Your task to perform on an android device: Open the calendar and show me this week's events Image 0: 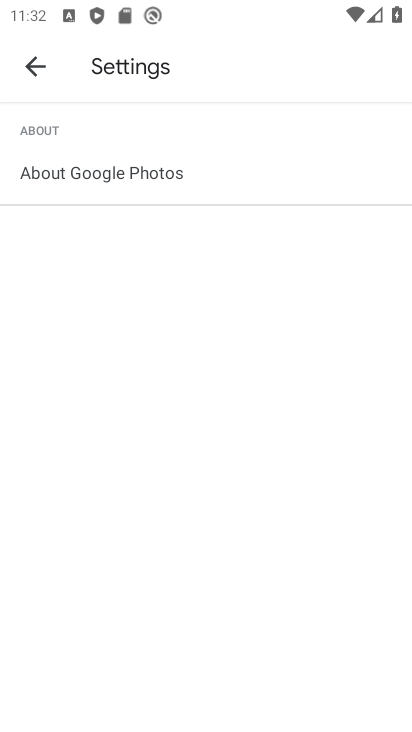
Step 0: press home button
Your task to perform on an android device: Open the calendar and show me this week's events Image 1: 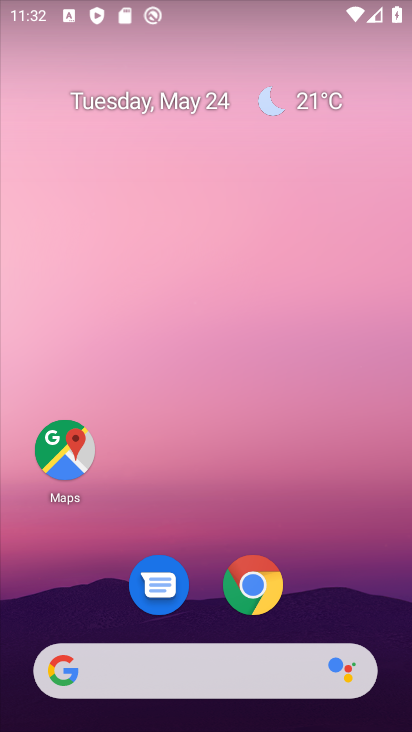
Step 1: drag from (226, 470) to (220, 0)
Your task to perform on an android device: Open the calendar and show me this week's events Image 2: 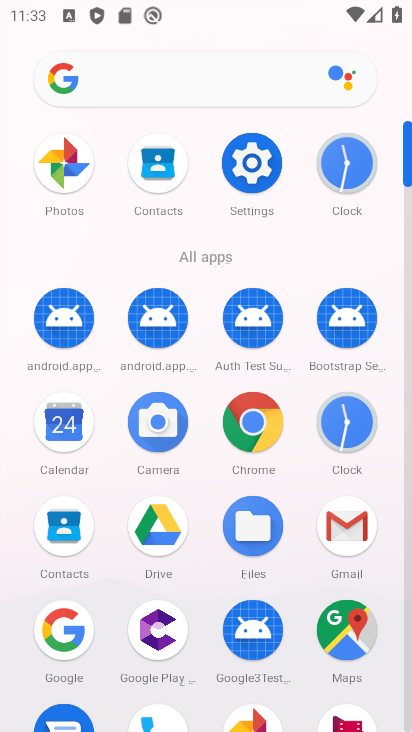
Step 2: click (60, 413)
Your task to perform on an android device: Open the calendar and show me this week's events Image 3: 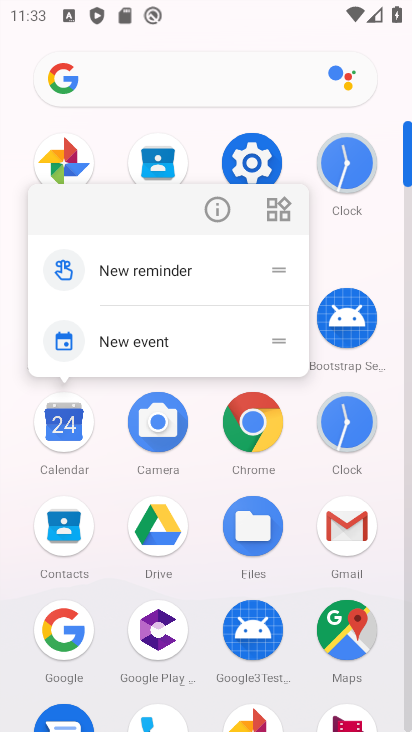
Step 3: click (60, 412)
Your task to perform on an android device: Open the calendar and show me this week's events Image 4: 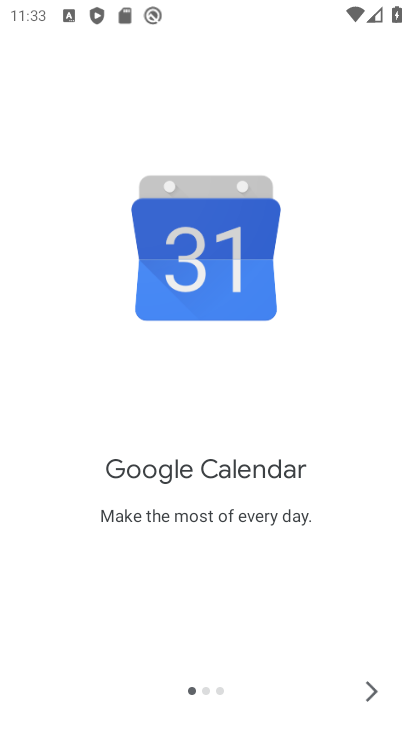
Step 4: click (368, 688)
Your task to perform on an android device: Open the calendar and show me this week's events Image 5: 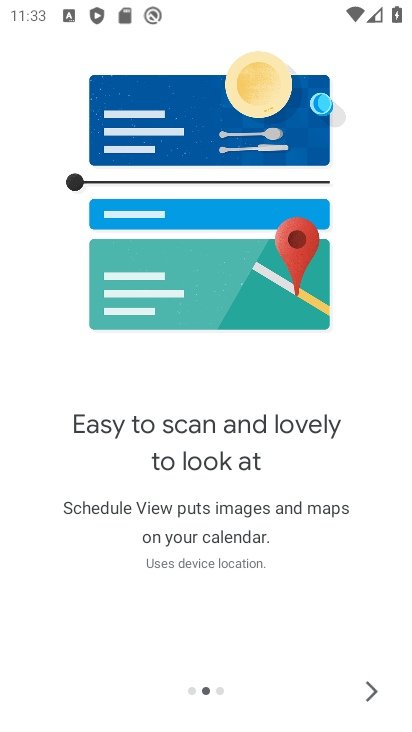
Step 5: click (368, 688)
Your task to perform on an android device: Open the calendar and show me this week's events Image 6: 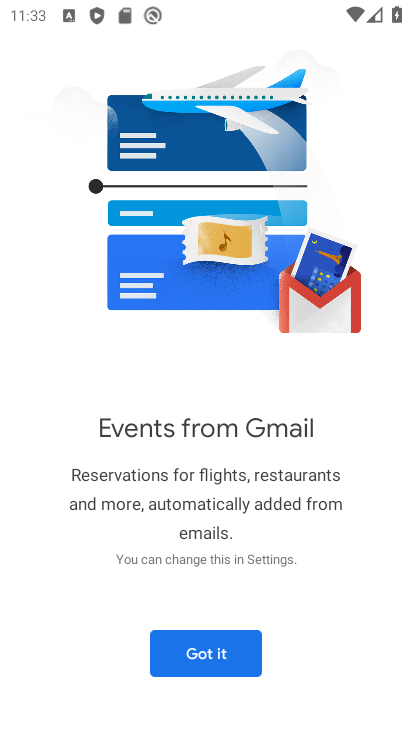
Step 6: click (243, 663)
Your task to perform on an android device: Open the calendar and show me this week's events Image 7: 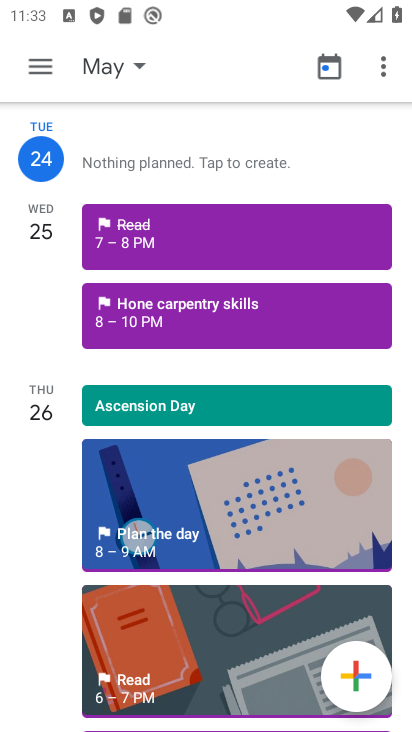
Step 7: click (44, 71)
Your task to perform on an android device: Open the calendar and show me this week's events Image 8: 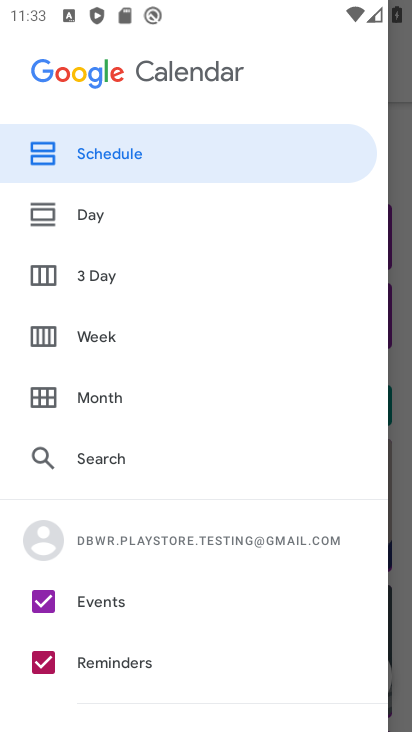
Step 8: click (38, 333)
Your task to perform on an android device: Open the calendar and show me this week's events Image 9: 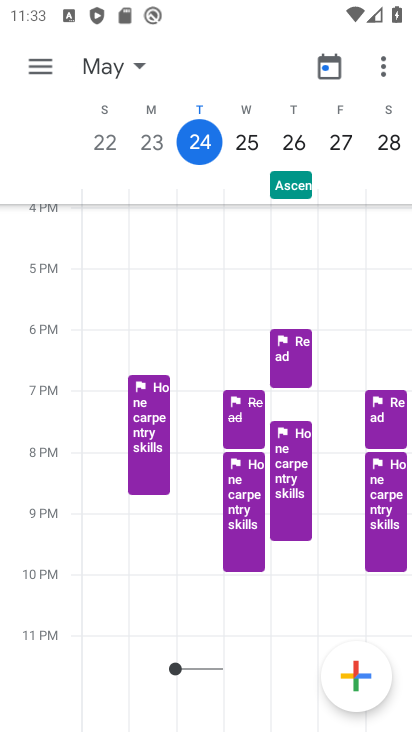
Step 9: task complete